Your task to perform on an android device: What is the news today? Image 0: 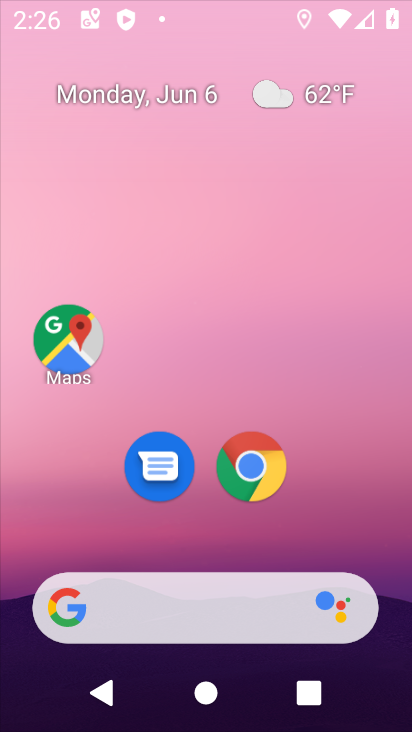
Step 0: press back button
Your task to perform on an android device: What is the news today? Image 1: 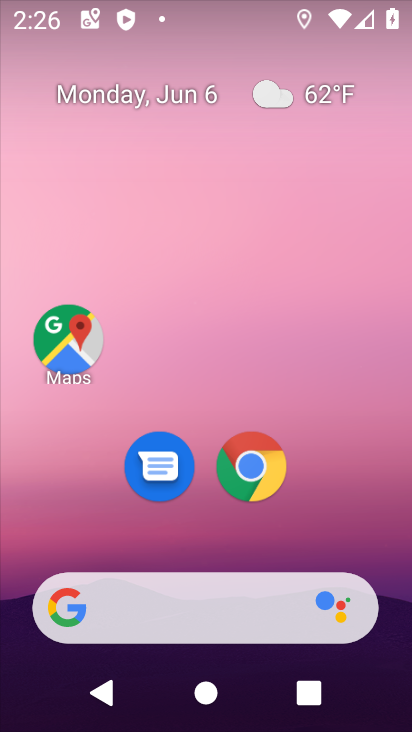
Step 1: press home button
Your task to perform on an android device: What is the news today? Image 2: 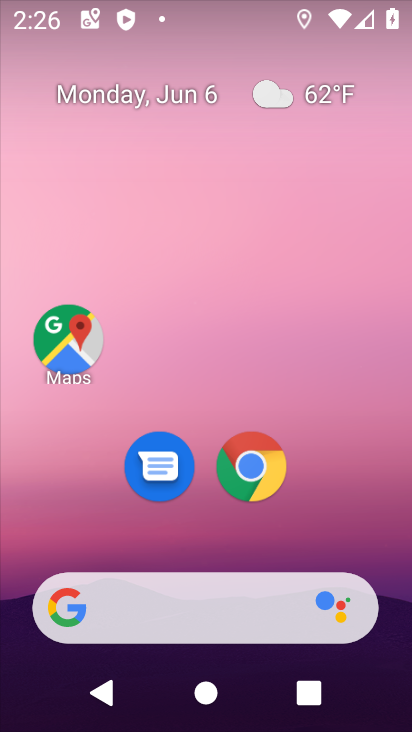
Step 2: click (135, 188)
Your task to perform on an android device: What is the news today? Image 3: 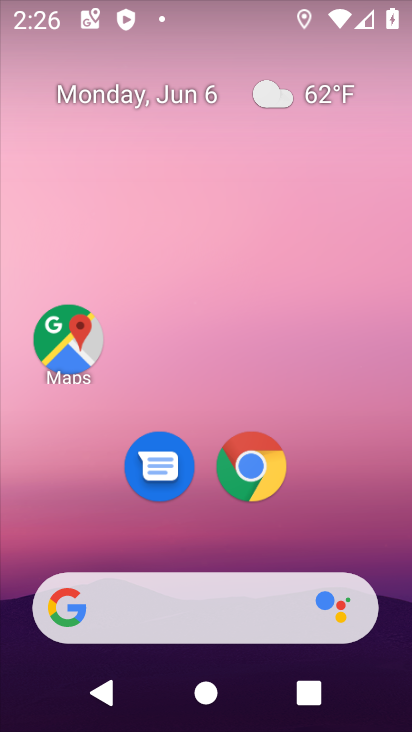
Step 3: task complete